Your task to perform on an android device: toggle sleep mode Image 0: 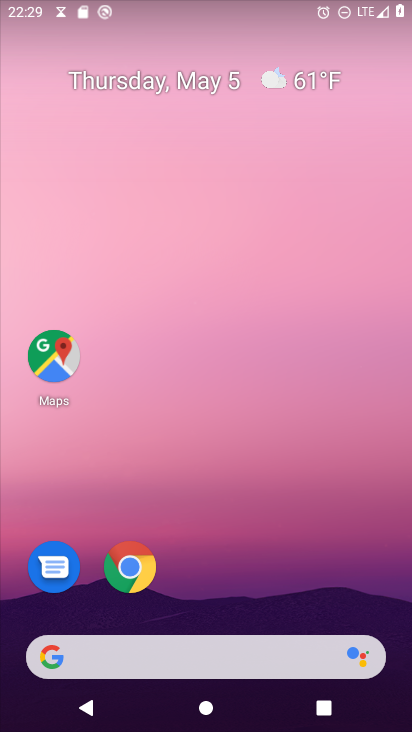
Step 0: drag from (221, 726) to (212, 193)
Your task to perform on an android device: toggle sleep mode Image 1: 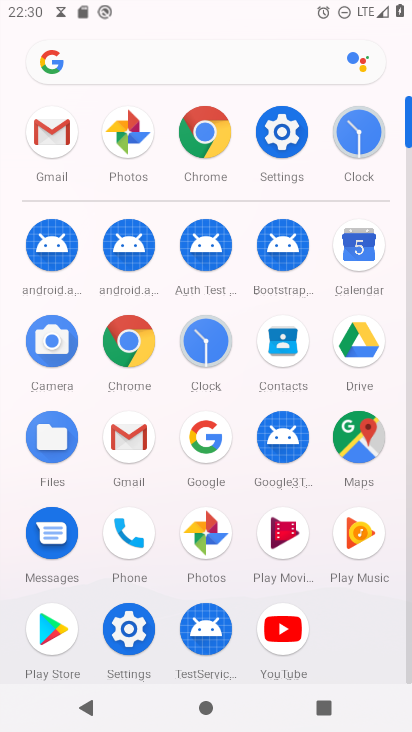
Step 1: click (278, 129)
Your task to perform on an android device: toggle sleep mode Image 2: 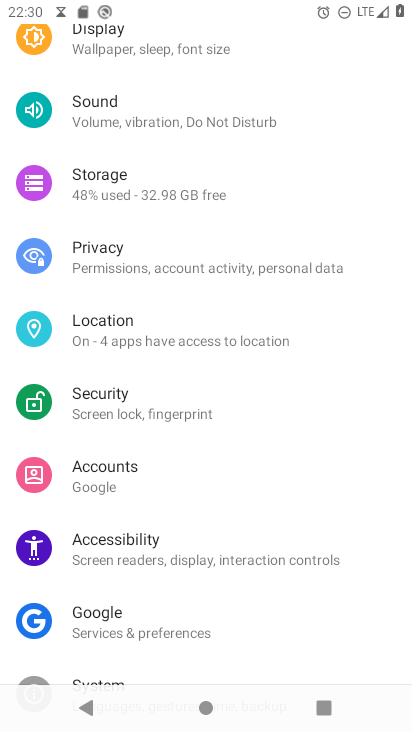
Step 2: drag from (225, 107) to (202, 612)
Your task to perform on an android device: toggle sleep mode Image 3: 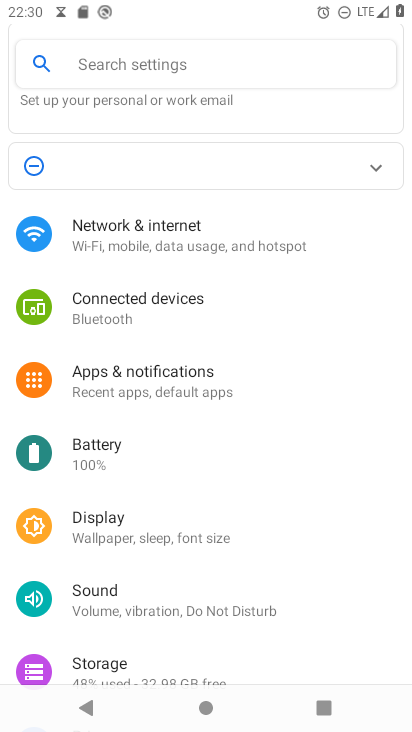
Step 3: drag from (177, 660) to (179, 539)
Your task to perform on an android device: toggle sleep mode Image 4: 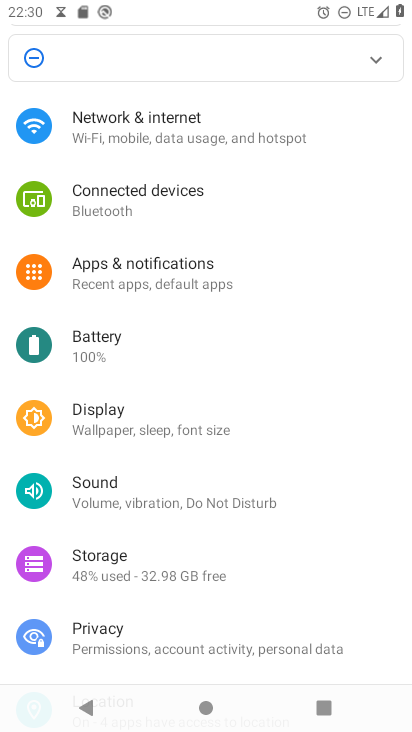
Step 4: drag from (166, 634) to (173, 49)
Your task to perform on an android device: toggle sleep mode Image 5: 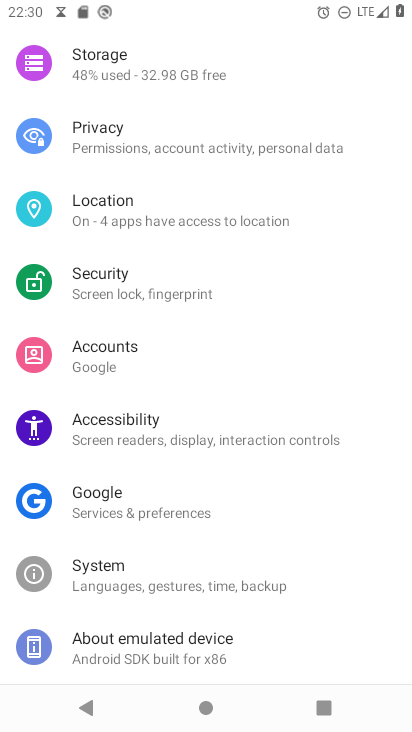
Step 5: drag from (220, 110) to (206, 462)
Your task to perform on an android device: toggle sleep mode Image 6: 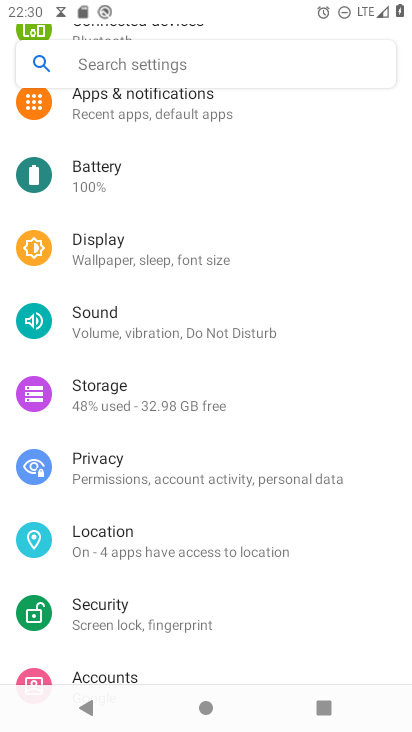
Step 6: click (144, 259)
Your task to perform on an android device: toggle sleep mode Image 7: 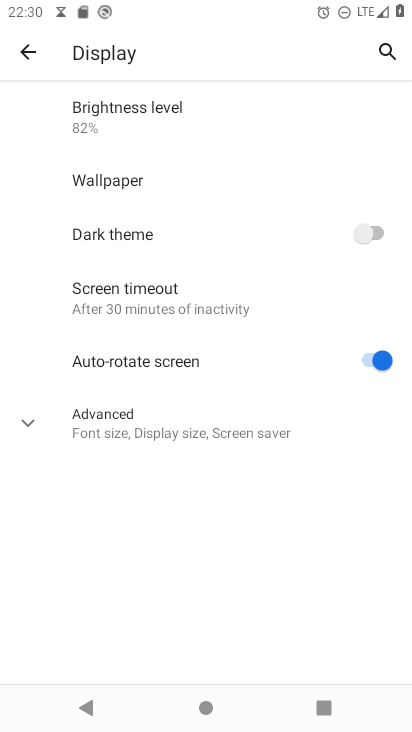
Step 7: task complete